Your task to perform on an android device: Open the calendar and show me this week's events? Image 0: 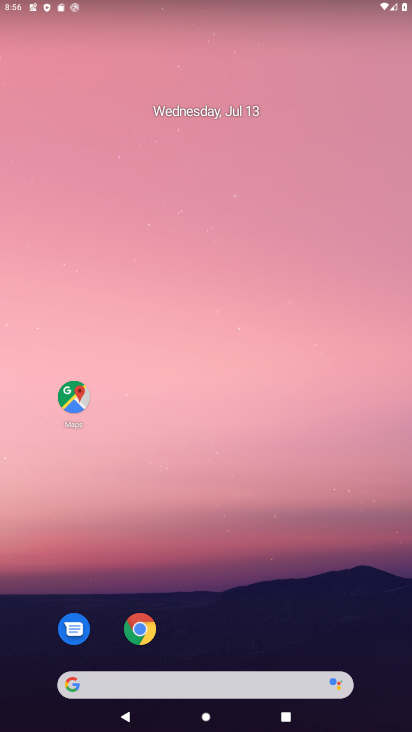
Step 0: drag from (235, 576) to (278, 100)
Your task to perform on an android device: Open the calendar and show me this week's events? Image 1: 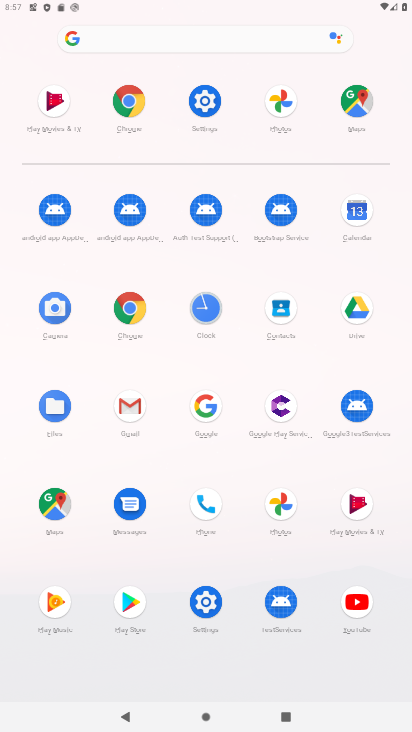
Step 1: click (349, 201)
Your task to perform on an android device: Open the calendar and show me this week's events? Image 2: 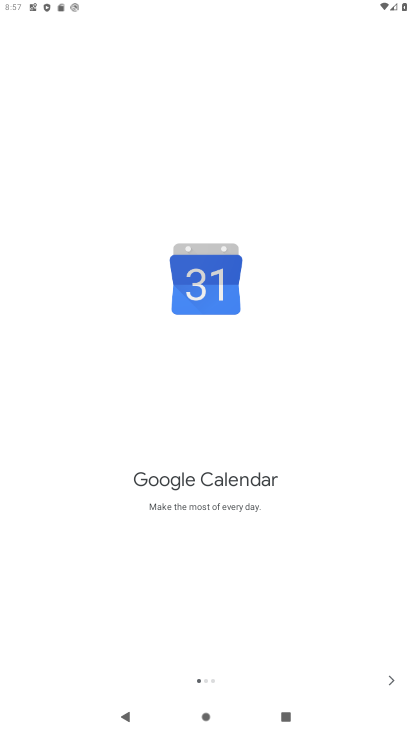
Step 2: click (379, 684)
Your task to perform on an android device: Open the calendar and show me this week's events? Image 3: 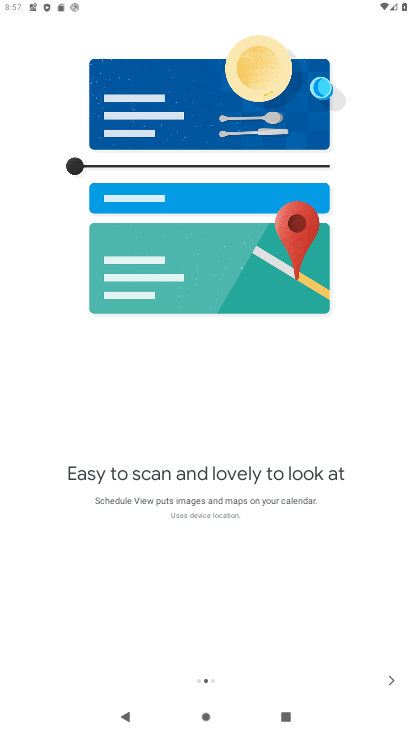
Step 3: click (379, 684)
Your task to perform on an android device: Open the calendar and show me this week's events? Image 4: 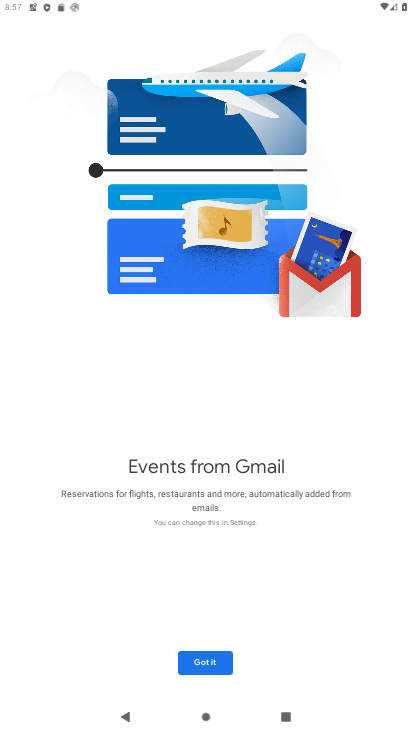
Step 4: click (223, 659)
Your task to perform on an android device: Open the calendar and show me this week's events? Image 5: 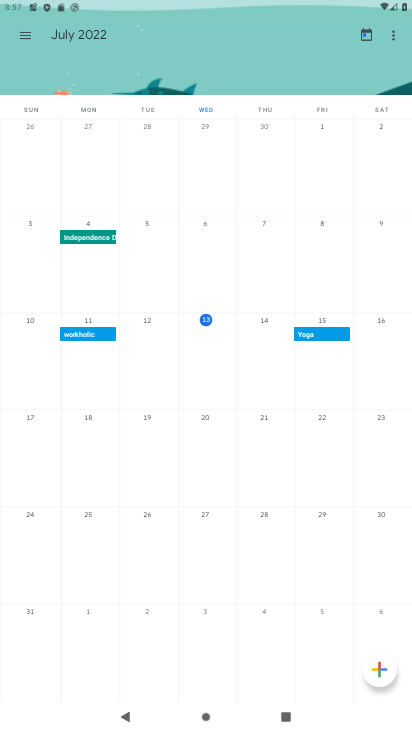
Step 5: click (264, 318)
Your task to perform on an android device: Open the calendar and show me this week's events? Image 6: 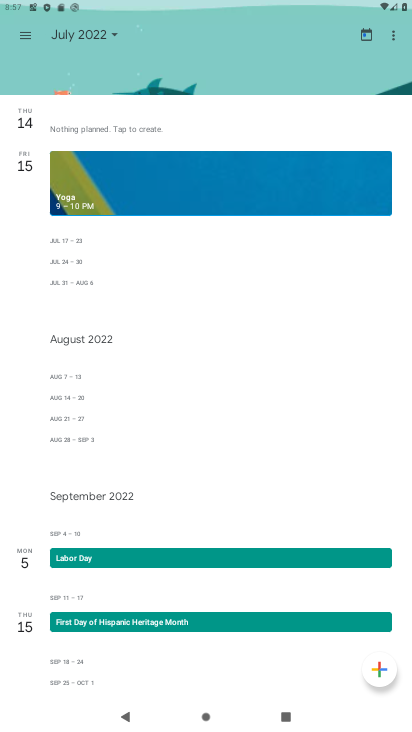
Step 6: task complete